Your task to perform on an android device: allow cookies in the chrome app Image 0: 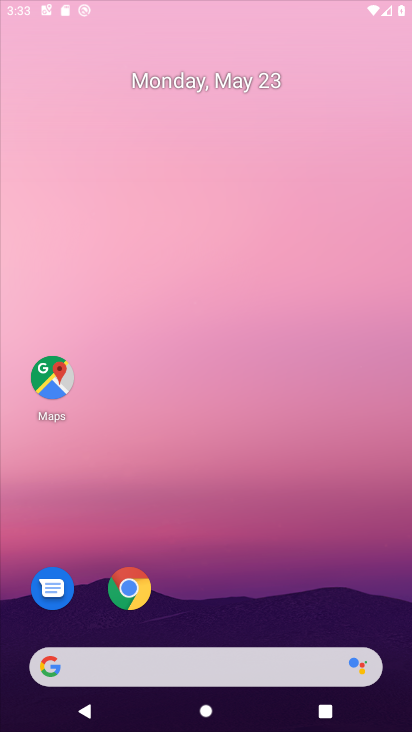
Step 0: click (278, 76)
Your task to perform on an android device: allow cookies in the chrome app Image 1: 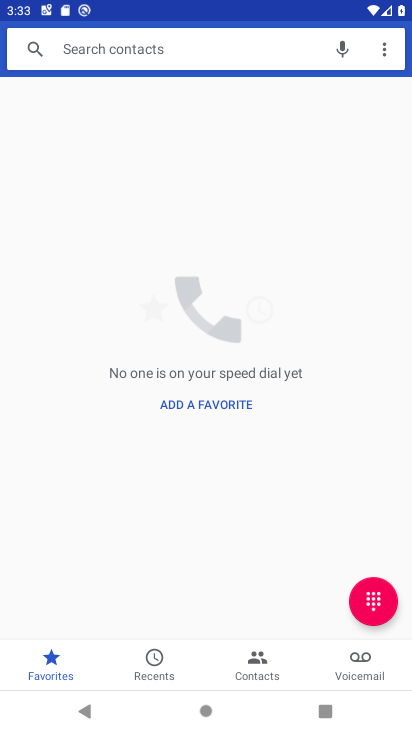
Step 1: press home button
Your task to perform on an android device: allow cookies in the chrome app Image 2: 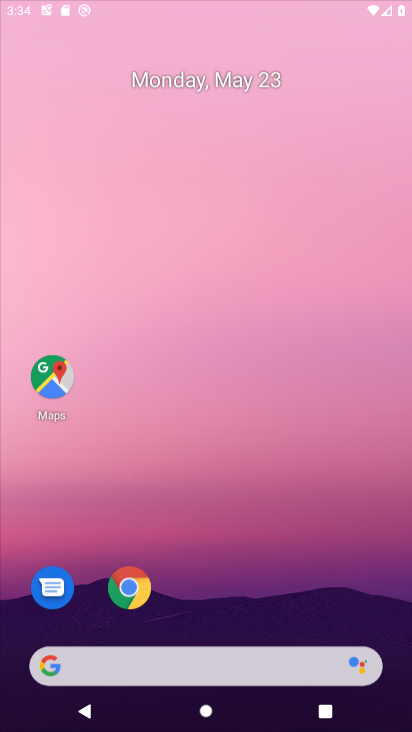
Step 2: press home button
Your task to perform on an android device: allow cookies in the chrome app Image 3: 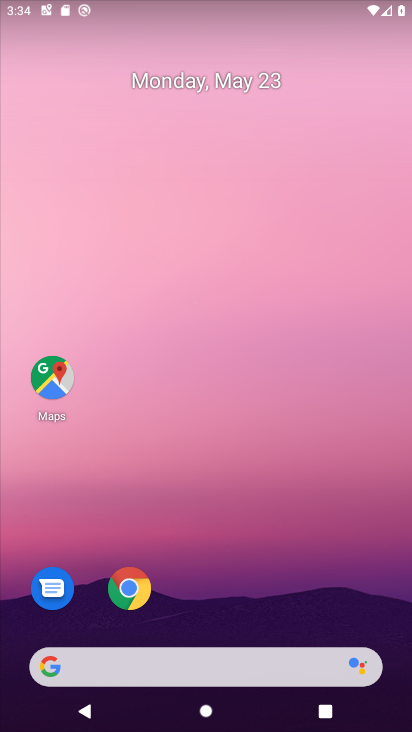
Step 3: drag from (173, 614) to (227, 52)
Your task to perform on an android device: allow cookies in the chrome app Image 4: 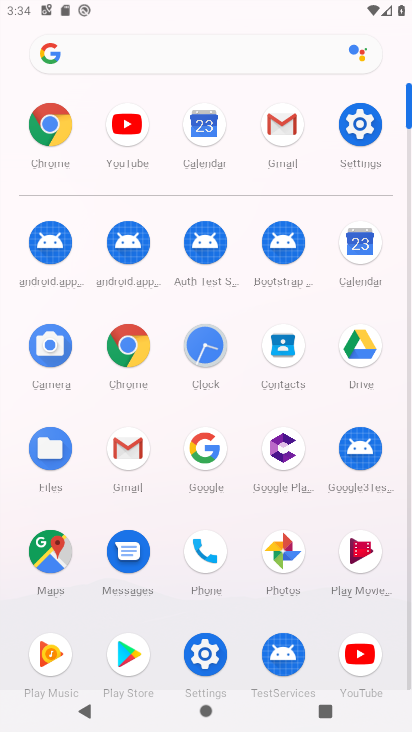
Step 4: click (128, 343)
Your task to perform on an android device: allow cookies in the chrome app Image 5: 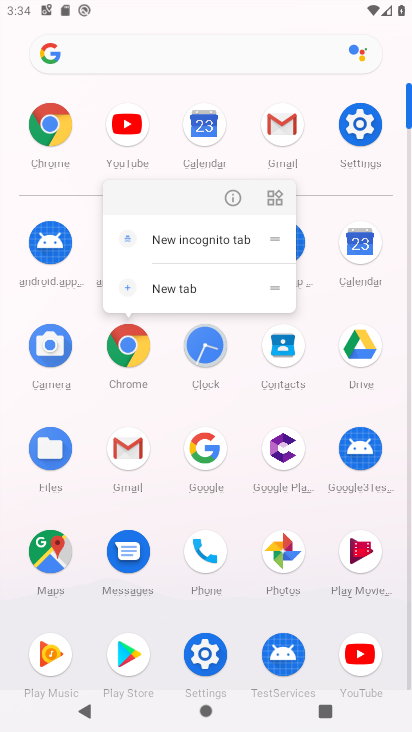
Step 5: click (228, 191)
Your task to perform on an android device: allow cookies in the chrome app Image 6: 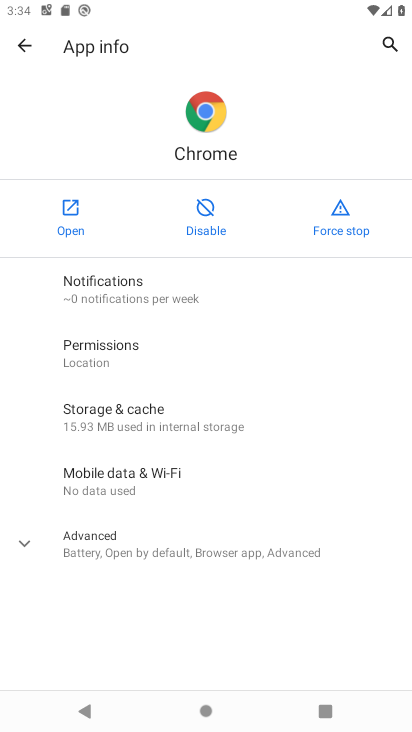
Step 6: click (68, 207)
Your task to perform on an android device: allow cookies in the chrome app Image 7: 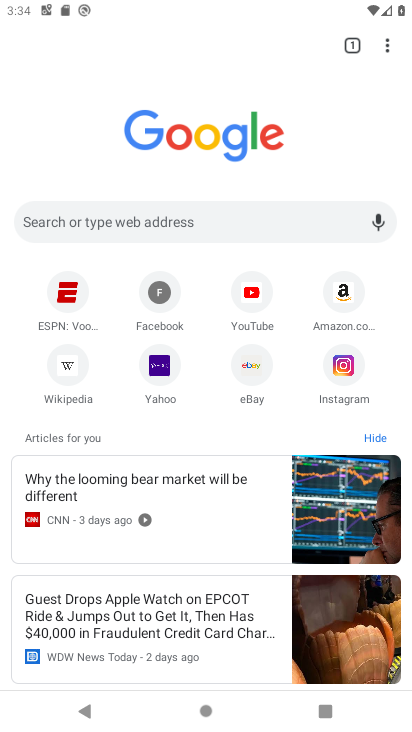
Step 7: click (389, 50)
Your task to perform on an android device: allow cookies in the chrome app Image 8: 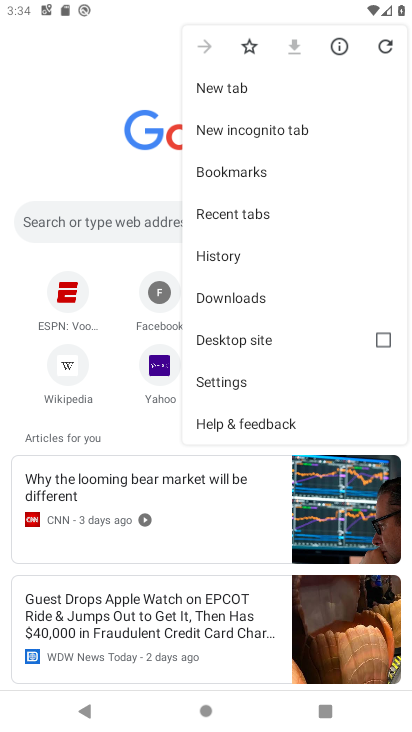
Step 8: click (255, 378)
Your task to perform on an android device: allow cookies in the chrome app Image 9: 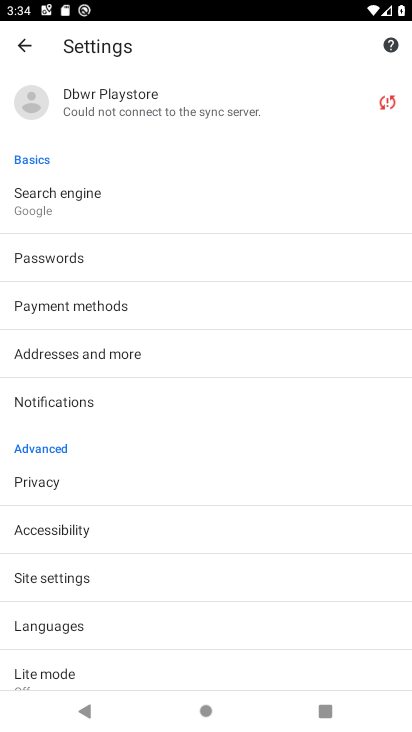
Step 9: click (71, 578)
Your task to perform on an android device: allow cookies in the chrome app Image 10: 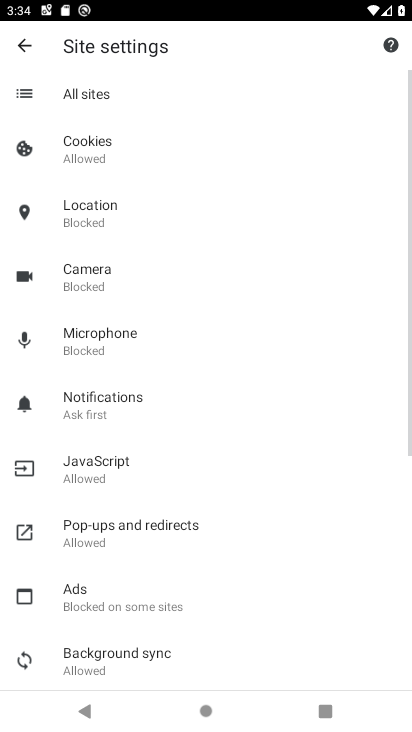
Step 10: click (118, 151)
Your task to perform on an android device: allow cookies in the chrome app Image 11: 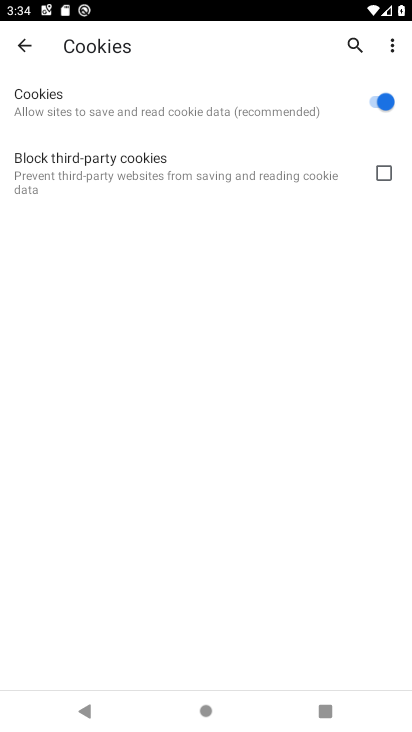
Step 11: task complete